Your task to perform on an android device: Search for Italian restaurants on Maps Image 0: 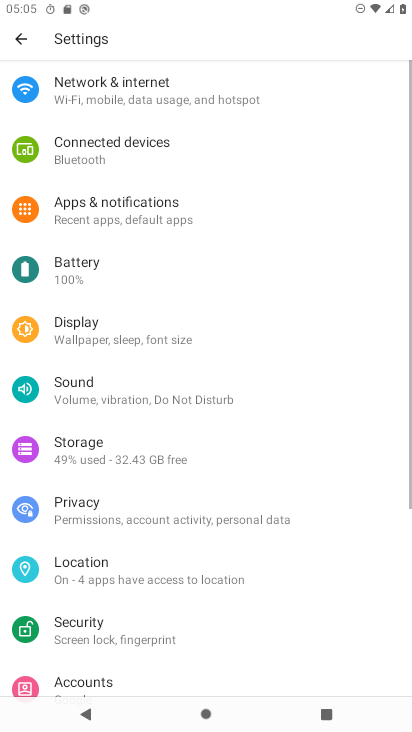
Step 0: press home button
Your task to perform on an android device: Search for Italian restaurants on Maps Image 1: 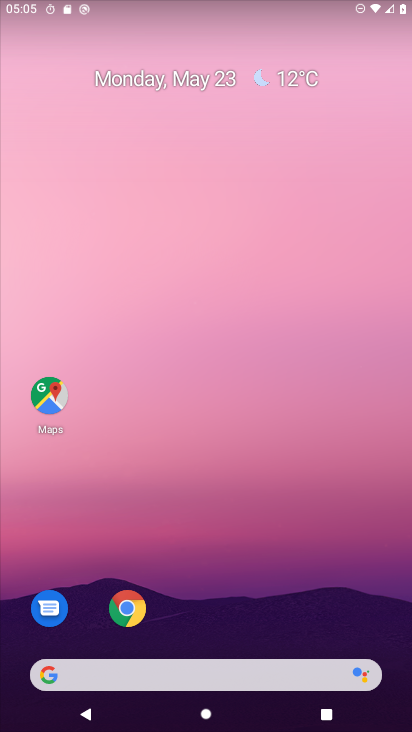
Step 1: click (55, 398)
Your task to perform on an android device: Search for Italian restaurants on Maps Image 2: 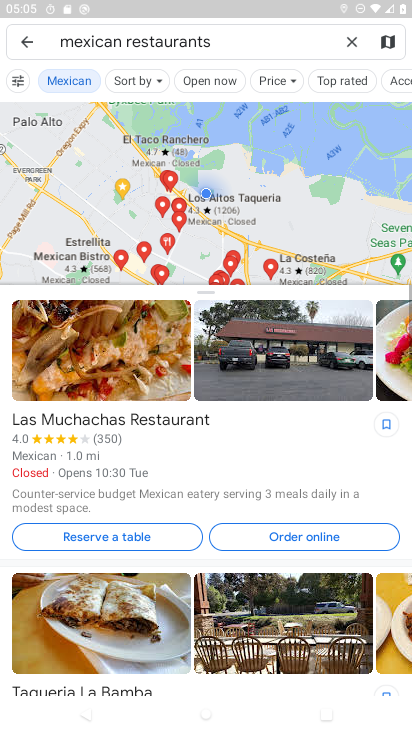
Step 2: click (343, 40)
Your task to perform on an android device: Search for Italian restaurants on Maps Image 3: 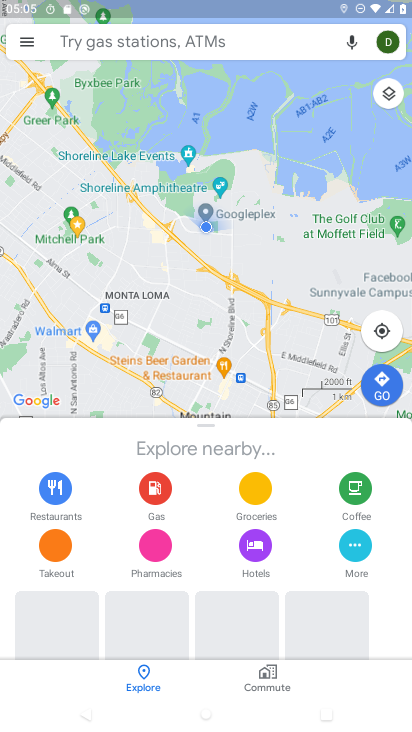
Step 3: click (226, 39)
Your task to perform on an android device: Search for Italian restaurants on Maps Image 4: 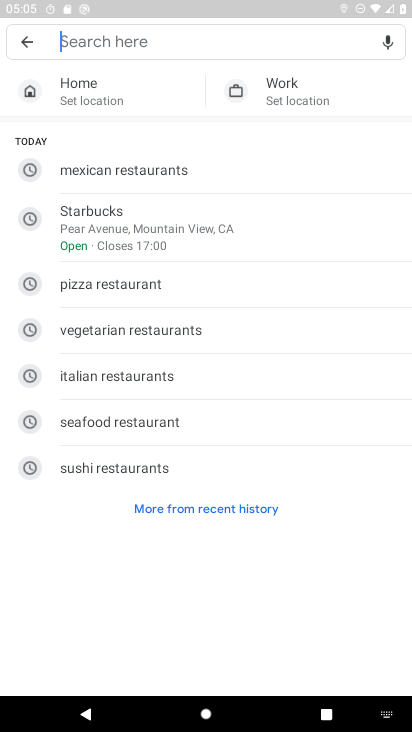
Step 4: click (156, 378)
Your task to perform on an android device: Search for Italian restaurants on Maps Image 5: 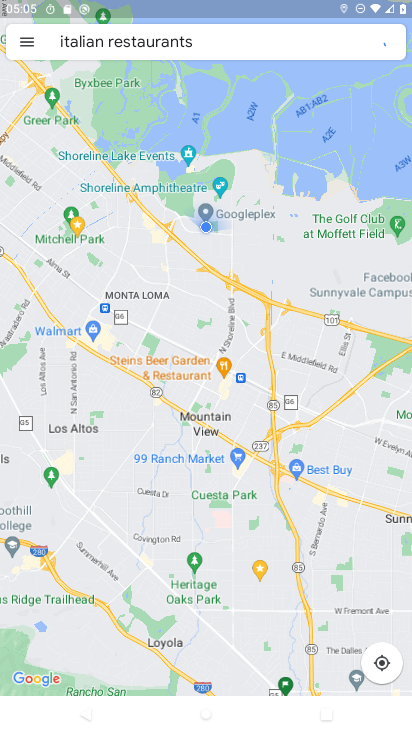
Step 5: task complete